Your task to perform on an android device: turn on sleep mode Image 0: 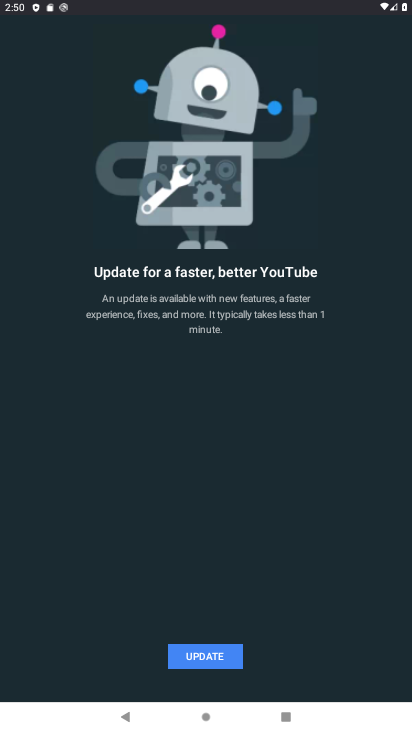
Step 0: press back button
Your task to perform on an android device: turn on sleep mode Image 1: 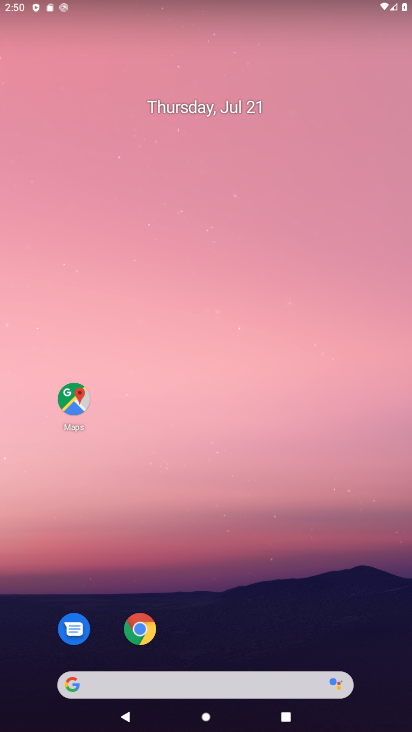
Step 1: drag from (377, 608) to (375, 78)
Your task to perform on an android device: turn on sleep mode Image 2: 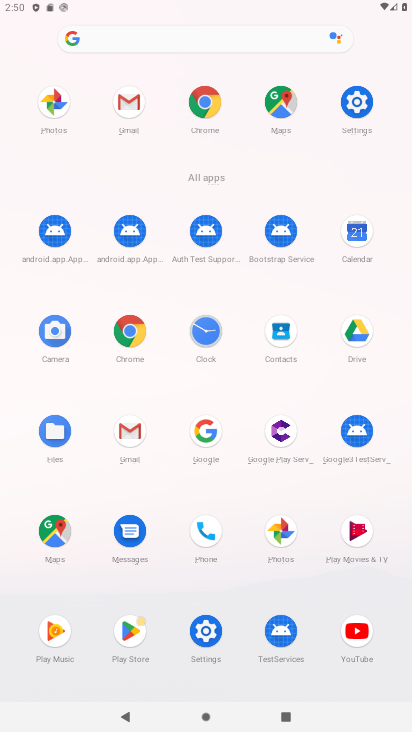
Step 2: click (358, 105)
Your task to perform on an android device: turn on sleep mode Image 3: 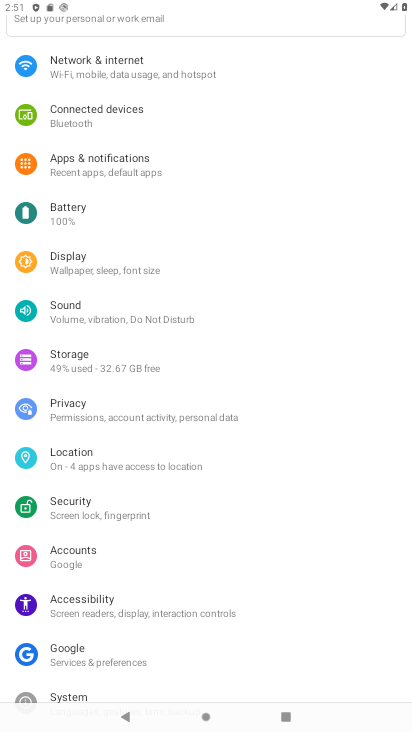
Step 3: click (92, 260)
Your task to perform on an android device: turn on sleep mode Image 4: 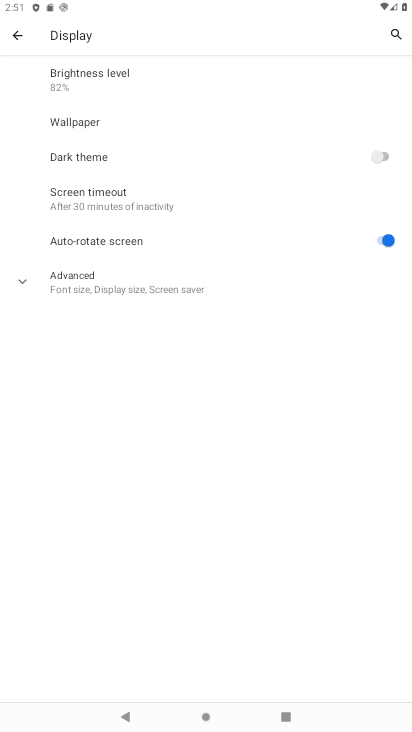
Step 4: click (12, 281)
Your task to perform on an android device: turn on sleep mode Image 5: 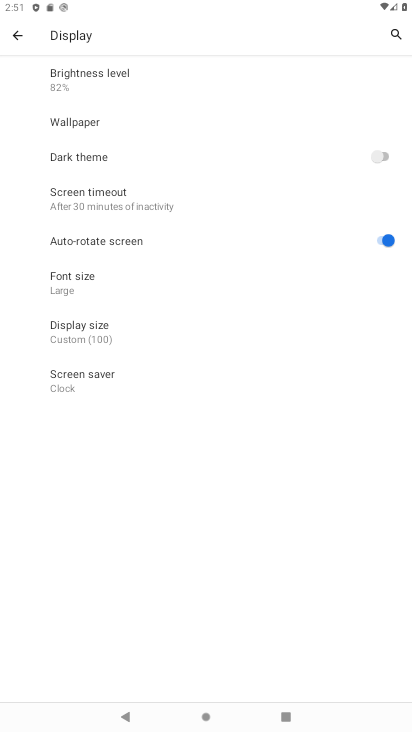
Step 5: task complete